Your task to perform on an android device: turn off location Image 0: 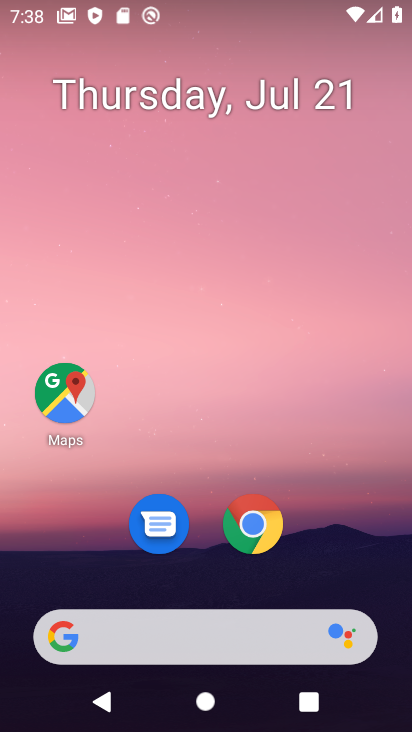
Step 0: press home button
Your task to perform on an android device: turn off location Image 1: 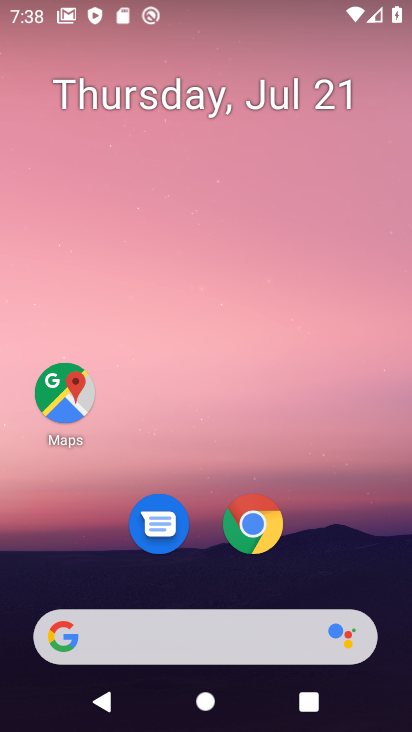
Step 1: drag from (200, 633) to (340, 119)
Your task to perform on an android device: turn off location Image 2: 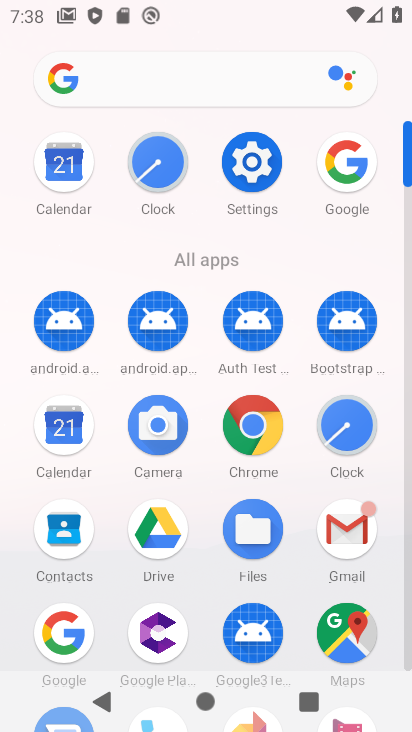
Step 2: drag from (191, 561) to (230, 587)
Your task to perform on an android device: turn off location Image 3: 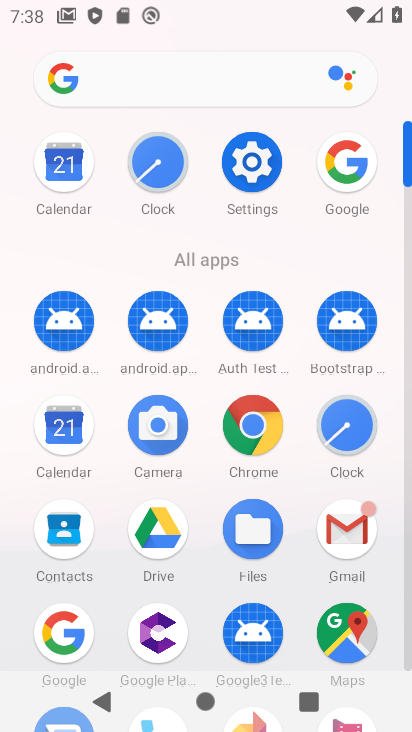
Step 3: click (255, 169)
Your task to perform on an android device: turn off location Image 4: 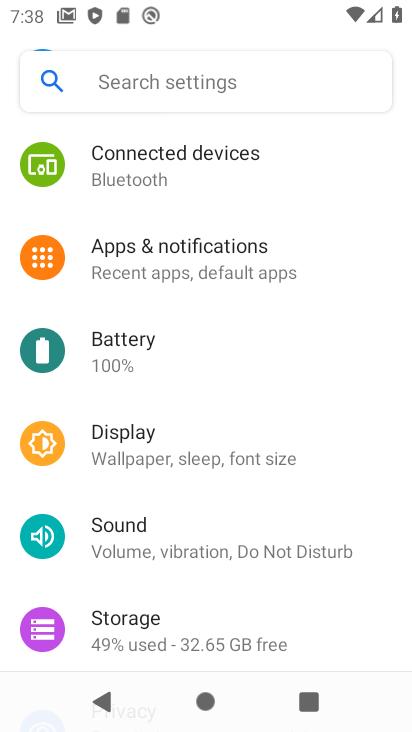
Step 4: drag from (207, 583) to (334, 113)
Your task to perform on an android device: turn off location Image 5: 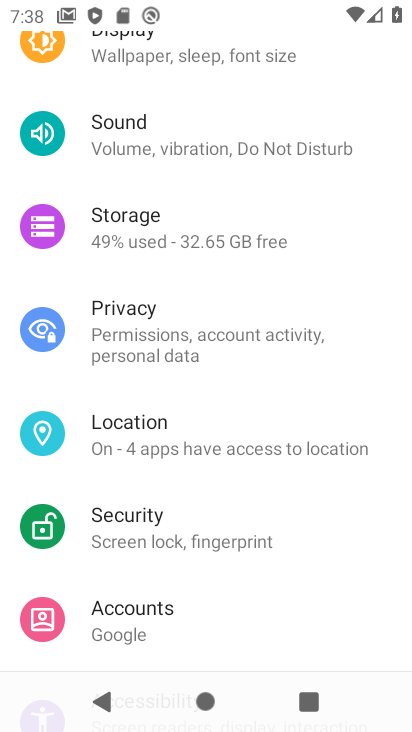
Step 5: click (160, 421)
Your task to perform on an android device: turn off location Image 6: 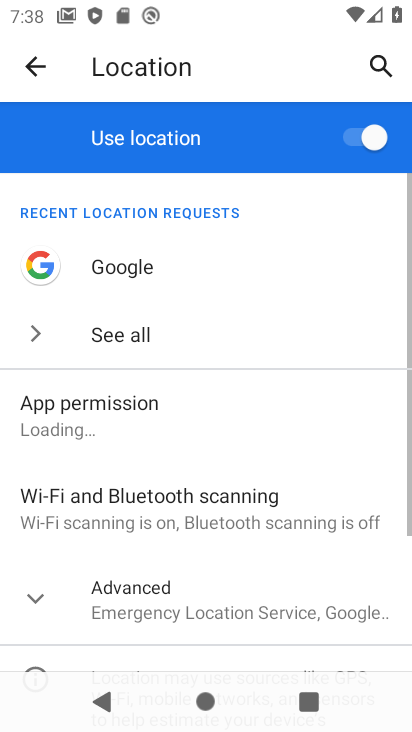
Step 6: click (351, 131)
Your task to perform on an android device: turn off location Image 7: 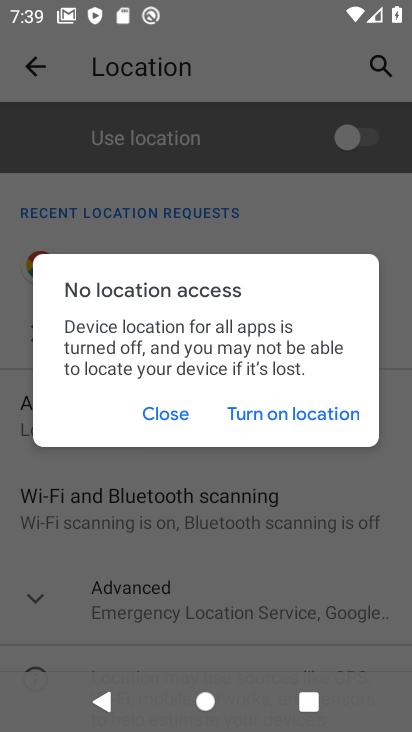
Step 7: click (163, 410)
Your task to perform on an android device: turn off location Image 8: 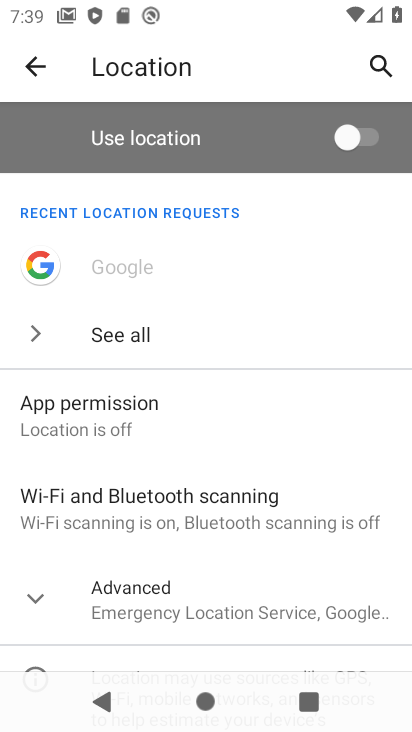
Step 8: task complete